Your task to perform on an android device: move an email to a new category in the gmail app Image 0: 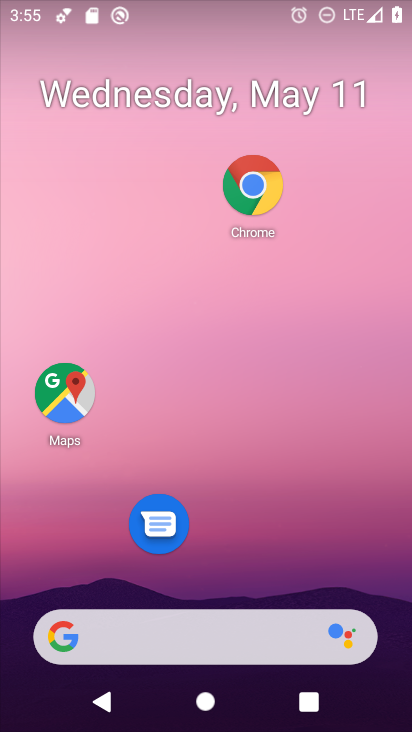
Step 0: drag from (330, 497) to (346, 46)
Your task to perform on an android device: move an email to a new category in the gmail app Image 1: 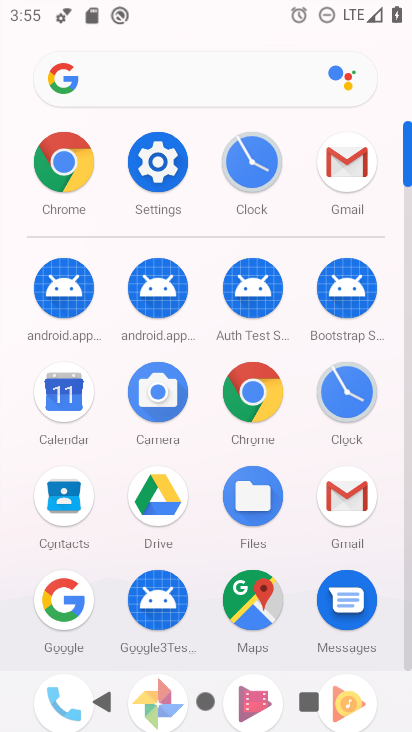
Step 1: click (343, 160)
Your task to perform on an android device: move an email to a new category in the gmail app Image 2: 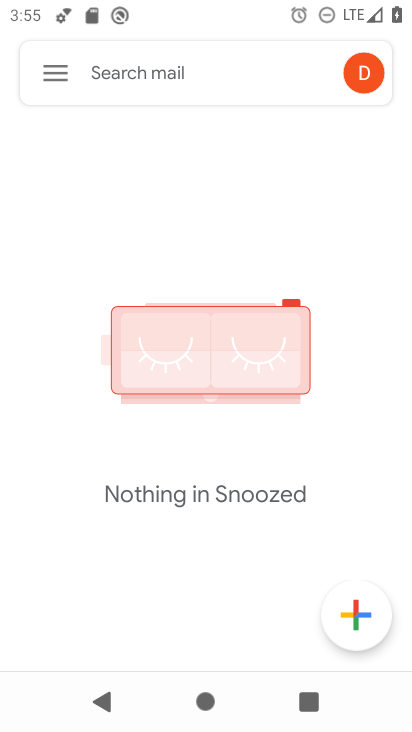
Step 2: click (56, 73)
Your task to perform on an android device: move an email to a new category in the gmail app Image 3: 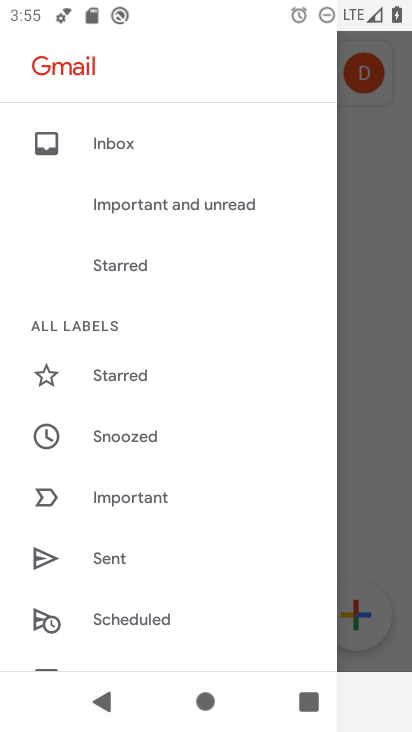
Step 3: drag from (150, 548) to (151, 225)
Your task to perform on an android device: move an email to a new category in the gmail app Image 4: 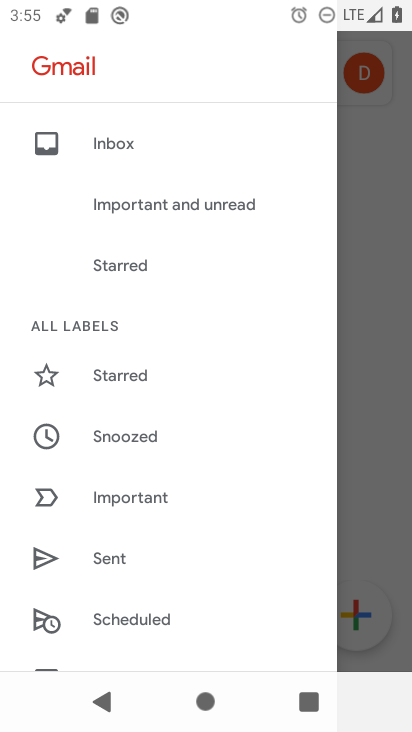
Step 4: drag from (194, 521) to (266, 136)
Your task to perform on an android device: move an email to a new category in the gmail app Image 5: 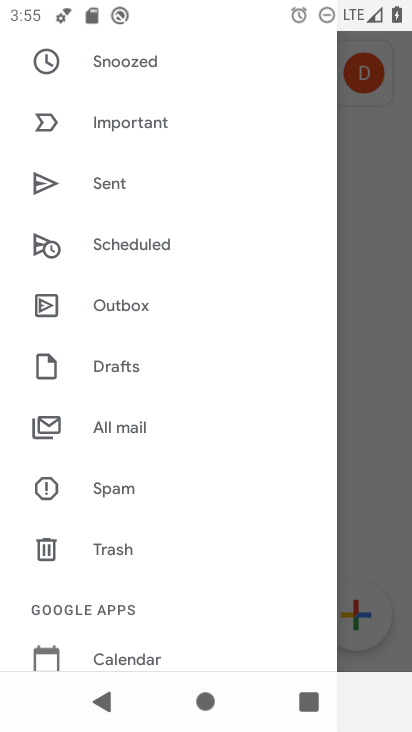
Step 5: click (144, 419)
Your task to perform on an android device: move an email to a new category in the gmail app Image 6: 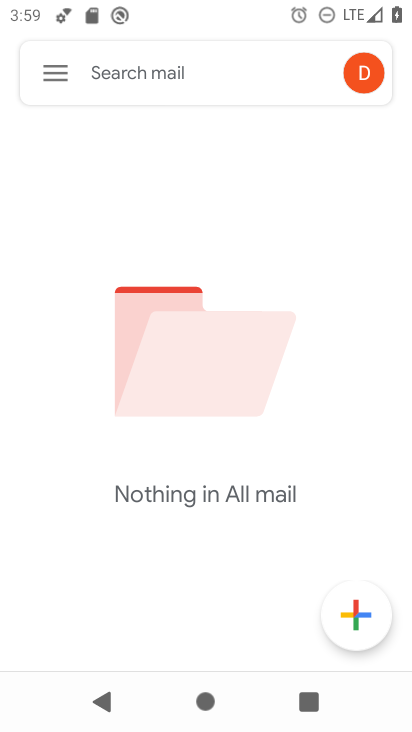
Step 6: task complete